Your task to perform on an android device: Open Yahoo.com Image 0: 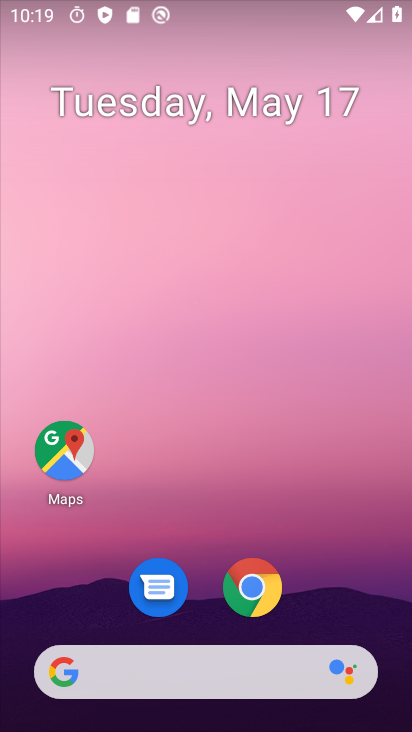
Step 0: drag from (323, 560) to (323, 209)
Your task to perform on an android device: Open Yahoo.com Image 1: 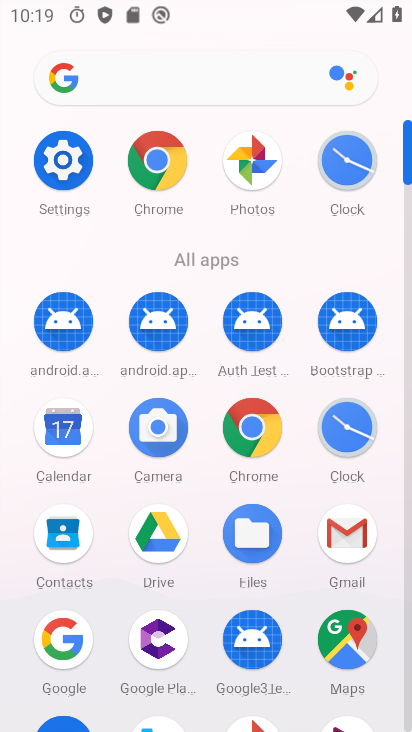
Step 1: click (248, 446)
Your task to perform on an android device: Open Yahoo.com Image 2: 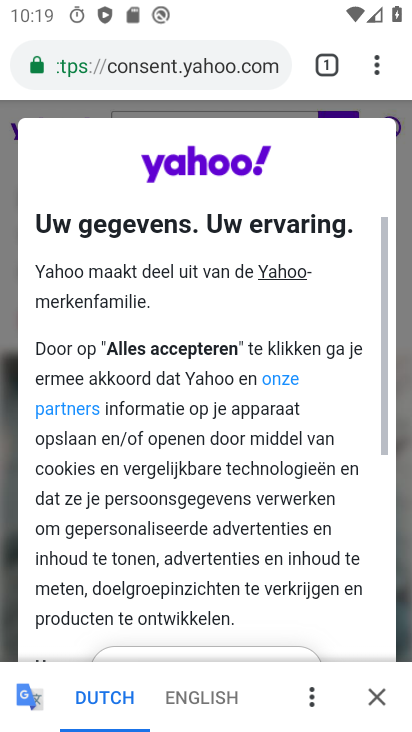
Step 2: click (152, 78)
Your task to perform on an android device: Open Yahoo.com Image 3: 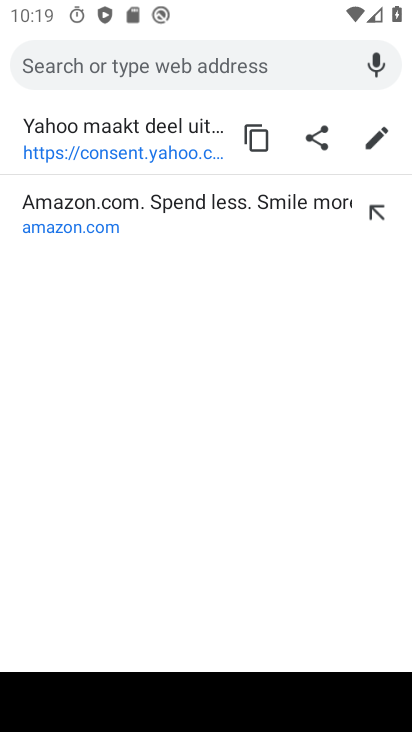
Step 3: click (153, 132)
Your task to perform on an android device: Open Yahoo.com Image 4: 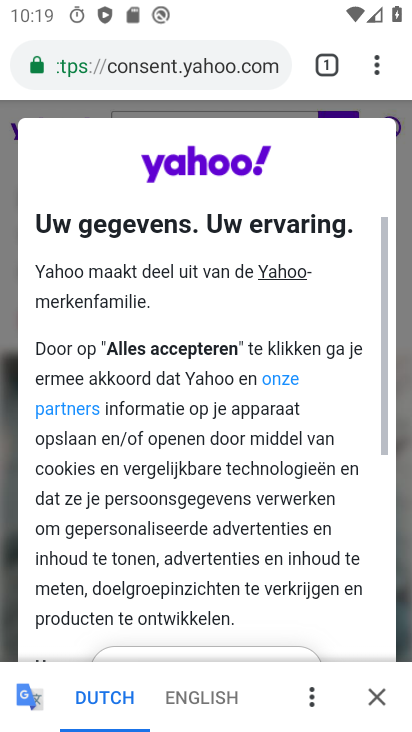
Step 4: task complete